Your task to perform on an android device: Add "macbook pro 15 inch" to the cart on target.com, then select checkout. Image 0: 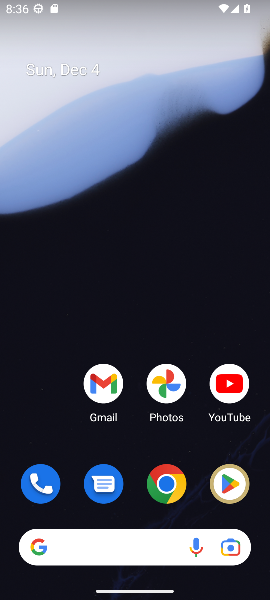
Step 0: click (170, 483)
Your task to perform on an android device: Add "macbook pro 15 inch" to the cart on target.com, then select checkout. Image 1: 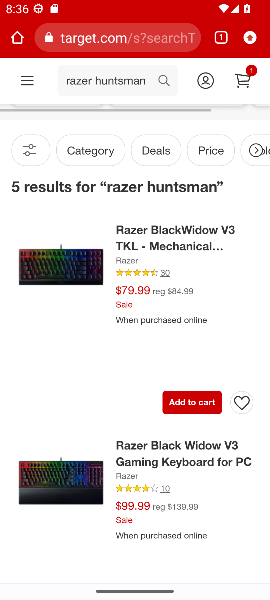
Step 1: click (105, 79)
Your task to perform on an android device: Add "macbook pro 15 inch" to the cart on target.com, then select checkout. Image 2: 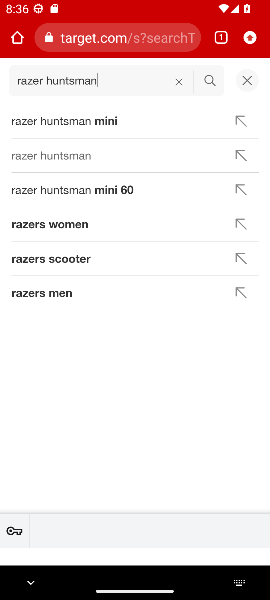
Step 2: click (177, 78)
Your task to perform on an android device: Add "macbook pro 15 inch" to the cart on target.com, then select checkout. Image 3: 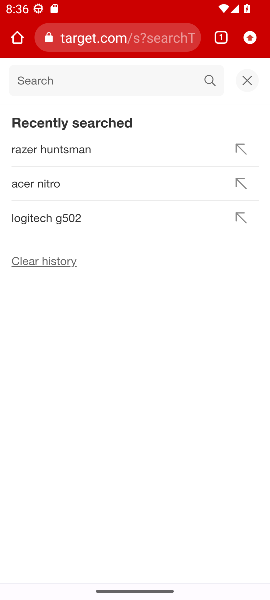
Step 3: type "macbook pro 15 inch"
Your task to perform on an android device: Add "macbook pro 15 inch" to the cart on target.com, then select checkout. Image 4: 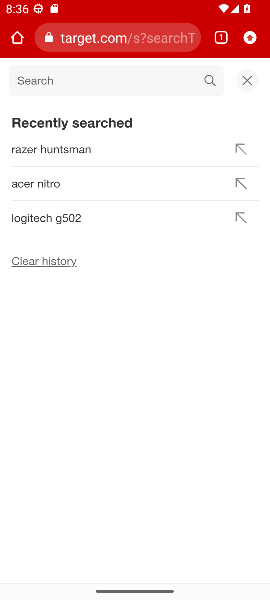
Step 4: click (42, 82)
Your task to perform on an android device: Add "macbook pro 15 inch" to the cart on target.com, then select checkout. Image 5: 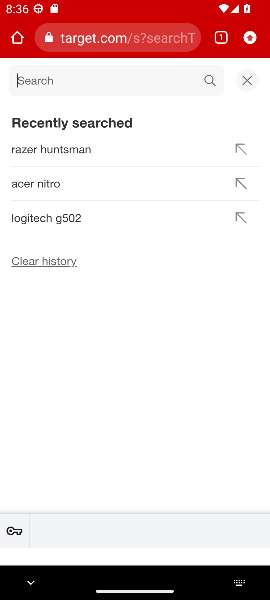
Step 5: type "macbook pro 15 inch"
Your task to perform on an android device: Add "macbook pro 15 inch" to the cart on target.com, then select checkout. Image 6: 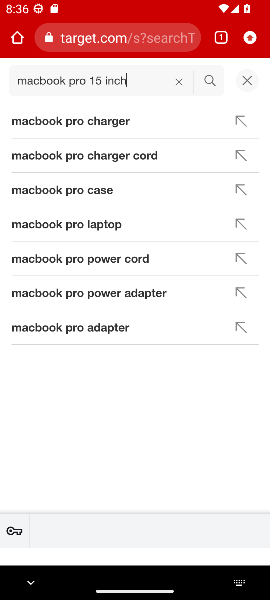
Step 6: click (203, 79)
Your task to perform on an android device: Add "macbook pro 15 inch" to the cart on target.com, then select checkout. Image 7: 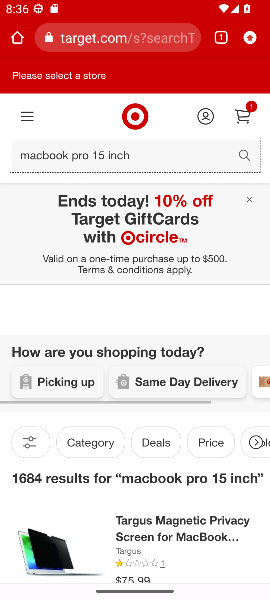
Step 7: drag from (83, 496) to (79, 229)
Your task to perform on an android device: Add "macbook pro 15 inch" to the cart on target.com, then select checkout. Image 8: 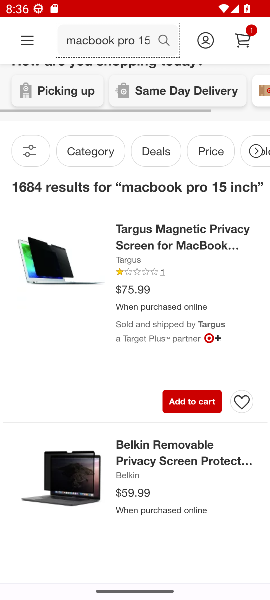
Step 8: click (141, 242)
Your task to perform on an android device: Add "macbook pro 15 inch" to the cart on target.com, then select checkout. Image 9: 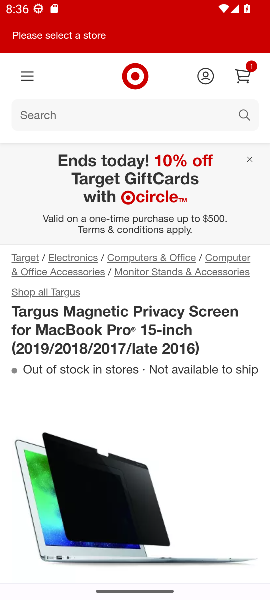
Step 9: drag from (141, 430) to (124, 183)
Your task to perform on an android device: Add "macbook pro 15 inch" to the cart on target.com, then select checkout. Image 10: 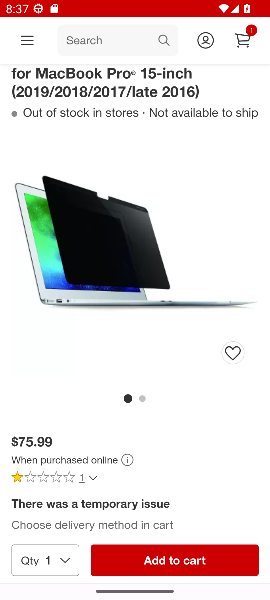
Step 10: drag from (88, 394) to (112, 240)
Your task to perform on an android device: Add "macbook pro 15 inch" to the cart on target.com, then select checkout. Image 11: 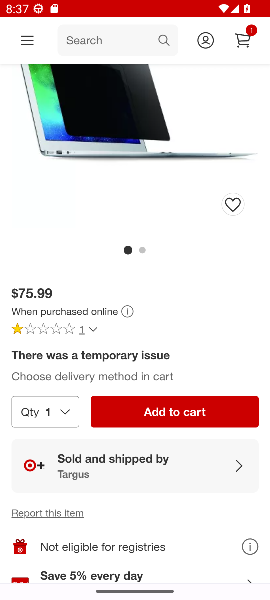
Step 11: click (156, 415)
Your task to perform on an android device: Add "macbook pro 15 inch" to the cart on target.com, then select checkout. Image 12: 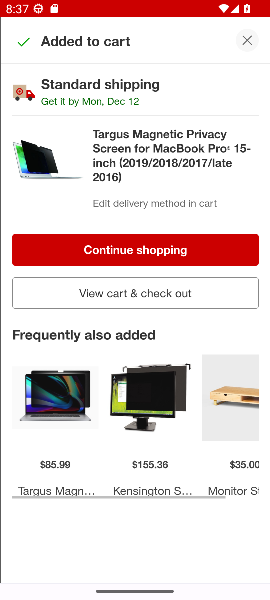
Step 12: click (126, 296)
Your task to perform on an android device: Add "macbook pro 15 inch" to the cart on target.com, then select checkout. Image 13: 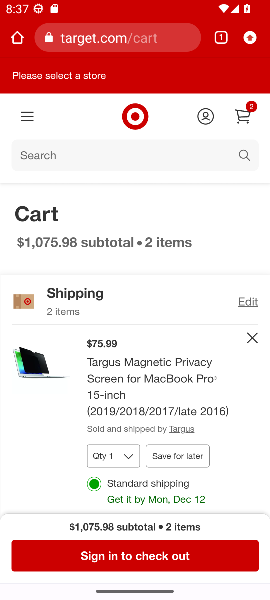
Step 13: click (150, 560)
Your task to perform on an android device: Add "macbook pro 15 inch" to the cart on target.com, then select checkout. Image 14: 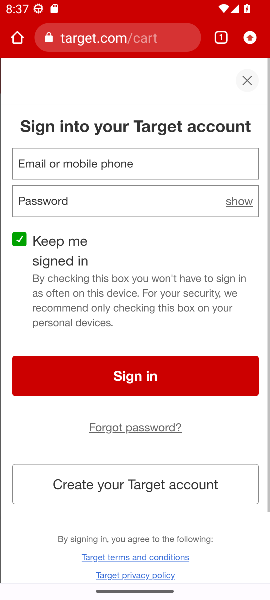
Step 14: task complete